Your task to perform on an android device: turn on the 12-hour format for clock Image 0: 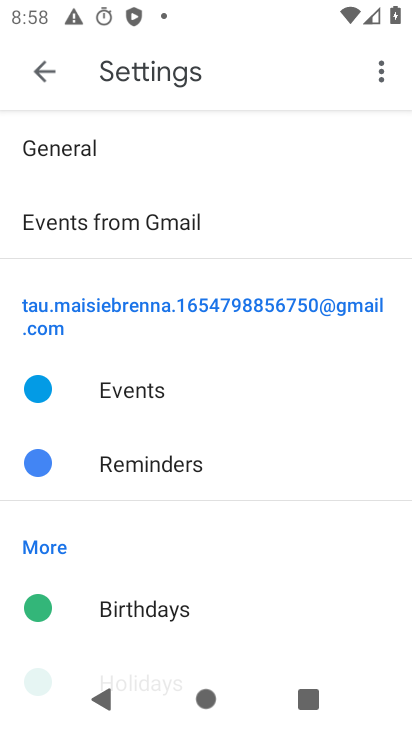
Step 0: press home button
Your task to perform on an android device: turn on the 12-hour format for clock Image 1: 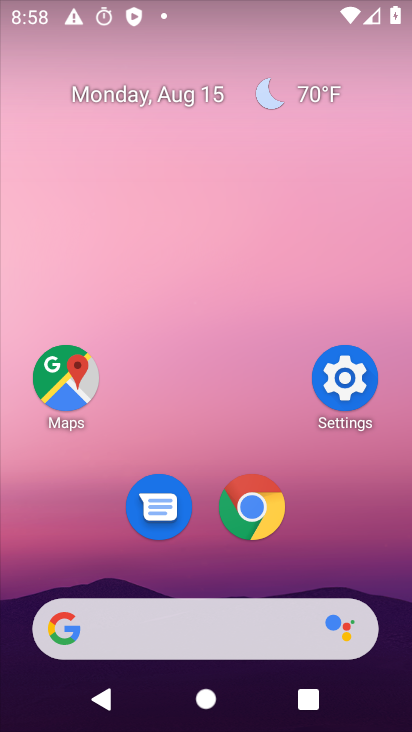
Step 1: drag from (206, 628) to (354, 128)
Your task to perform on an android device: turn on the 12-hour format for clock Image 2: 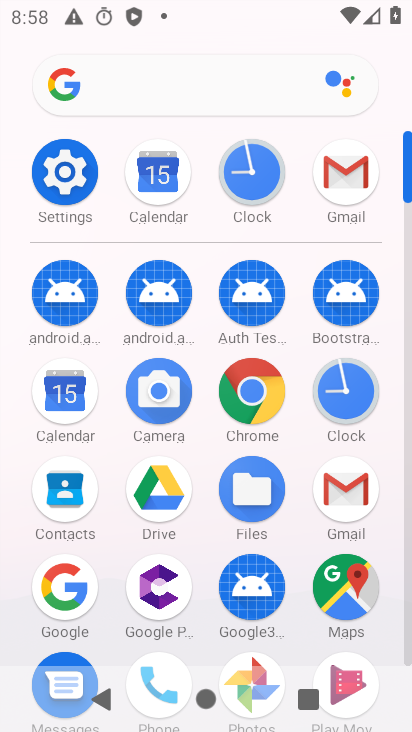
Step 2: click (351, 381)
Your task to perform on an android device: turn on the 12-hour format for clock Image 3: 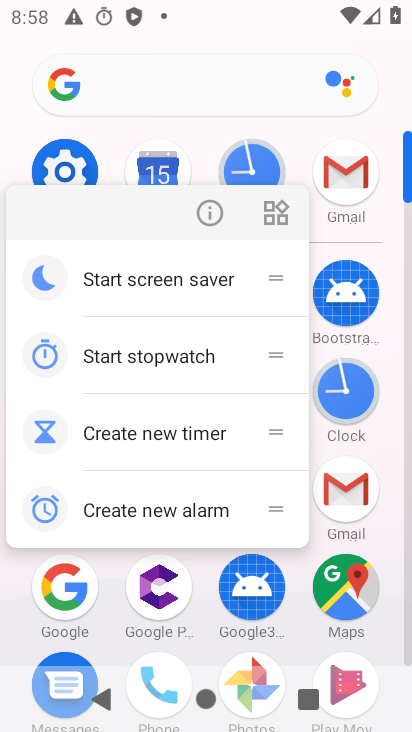
Step 3: click (351, 379)
Your task to perform on an android device: turn on the 12-hour format for clock Image 4: 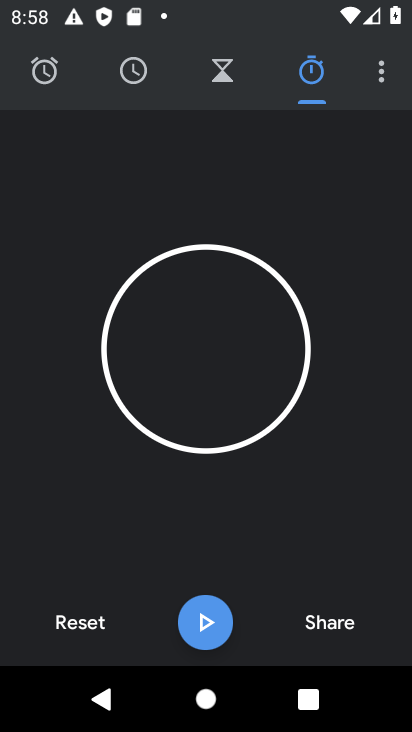
Step 4: click (380, 69)
Your task to perform on an android device: turn on the 12-hour format for clock Image 5: 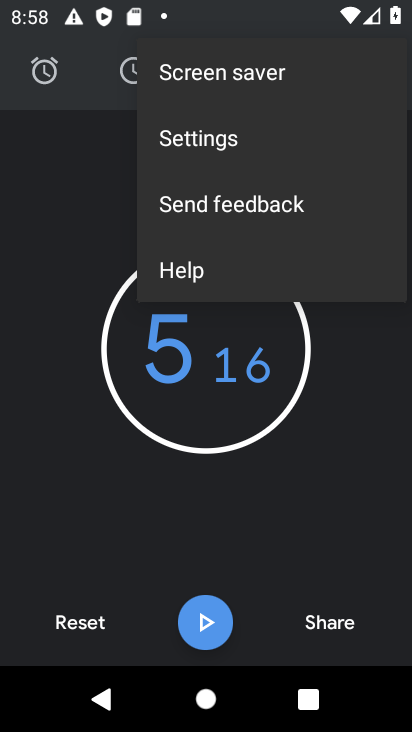
Step 5: click (214, 139)
Your task to perform on an android device: turn on the 12-hour format for clock Image 6: 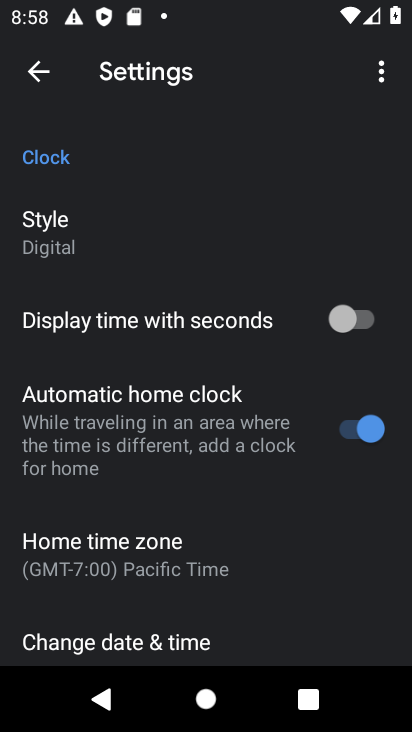
Step 6: drag from (192, 591) to (329, 291)
Your task to perform on an android device: turn on the 12-hour format for clock Image 7: 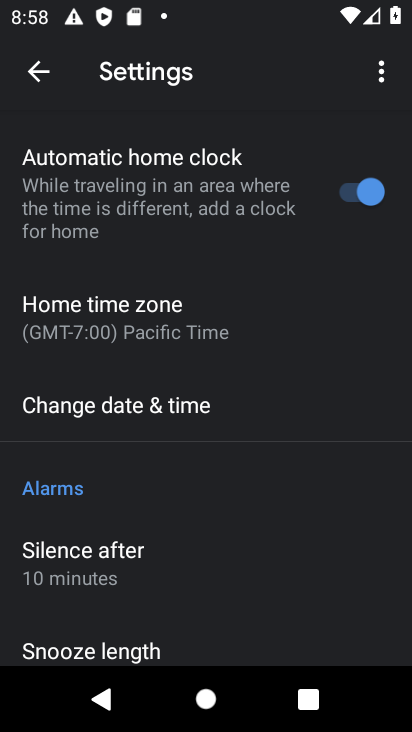
Step 7: click (166, 392)
Your task to perform on an android device: turn on the 12-hour format for clock Image 8: 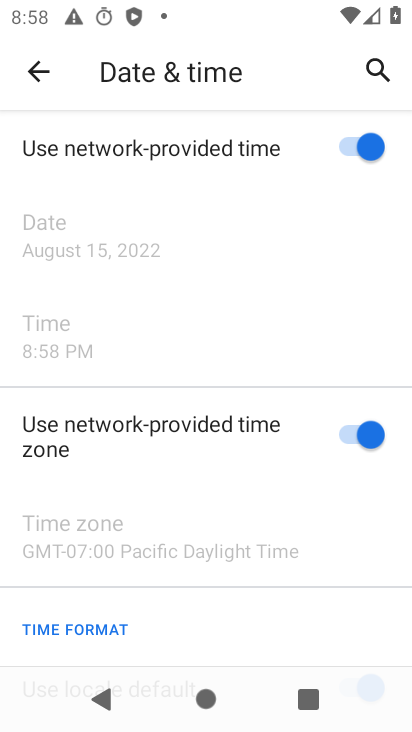
Step 8: task complete